Your task to perform on an android device: add a label to a message in the gmail app Image 0: 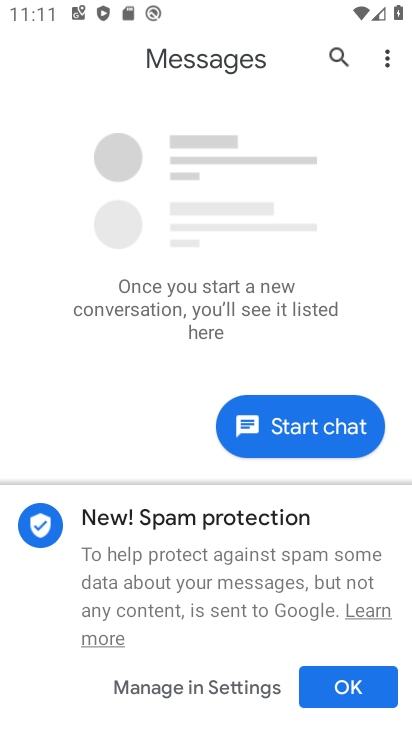
Step 0: press home button
Your task to perform on an android device: add a label to a message in the gmail app Image 1: 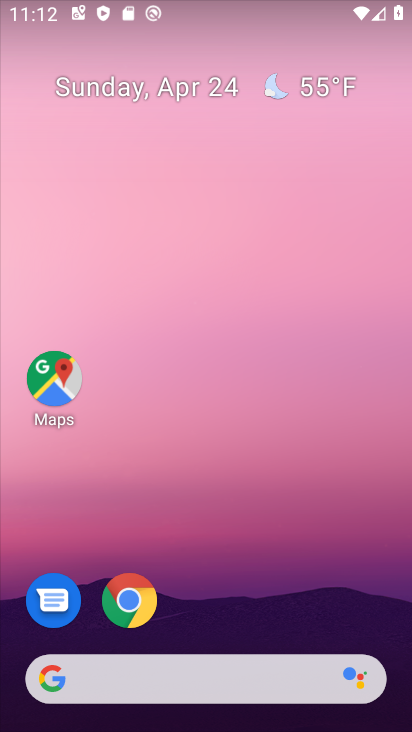
Step 1: drag from (219, 615) to (341, 29)
Your task to perform on an android device: add a label to a message in the gmail app Image 2: 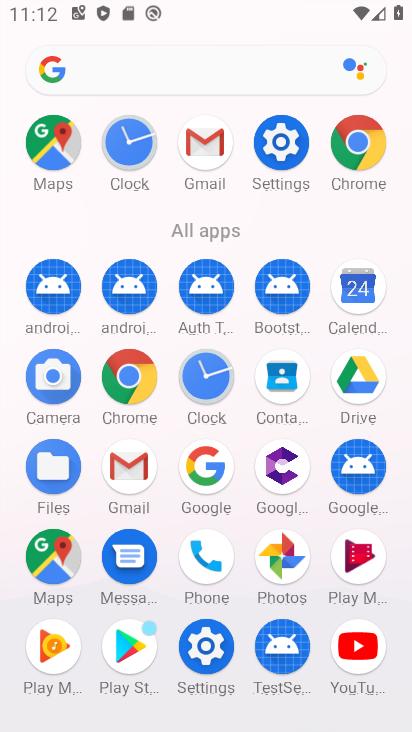
Step 2: click (210, 194)
Your task to perform on an android device: add a label to a message in the gmail app Image 3: 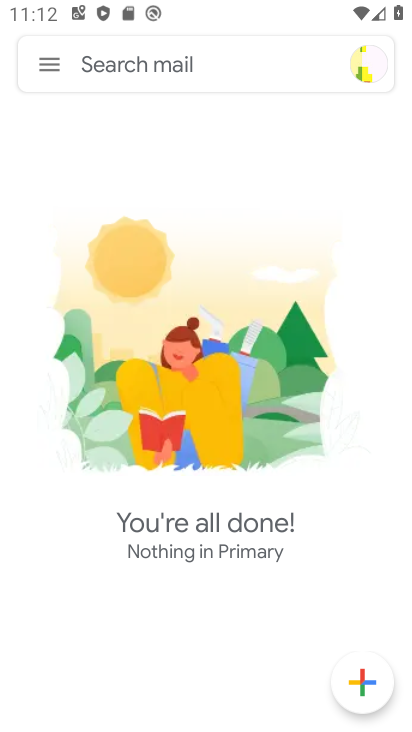
Step 3: task complete